Your task to perform on an android device: Go to Maps Image 0: 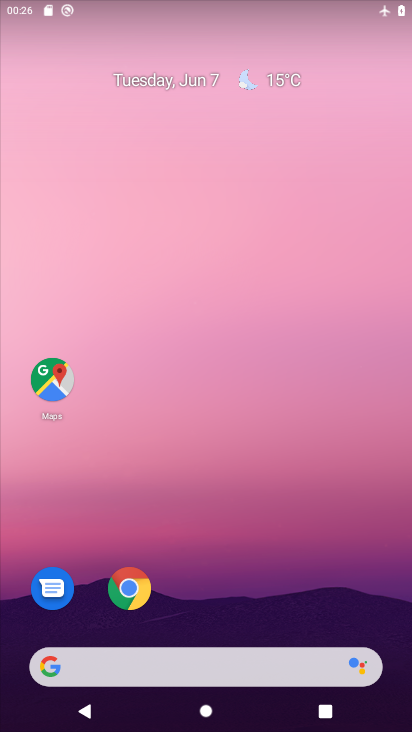
Step 0: click (55, 364)
Your task to perform on an android device: Go to Maps Image 1: 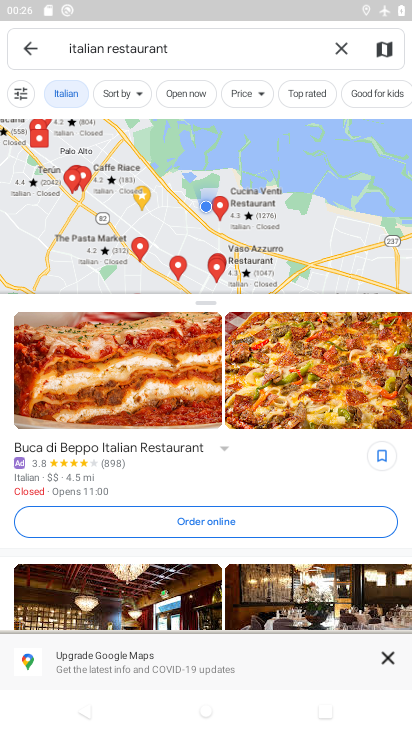
Step 1: task complete